Your task to perform on an android device: open a new tab in the chrome app Image 0: 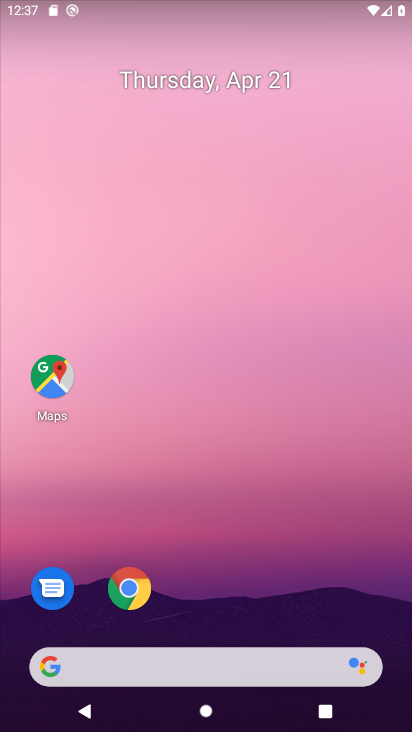
Step 0: click (129, 580)
Your task to perform on an android device: open a new tab in the chrome app Image 1: 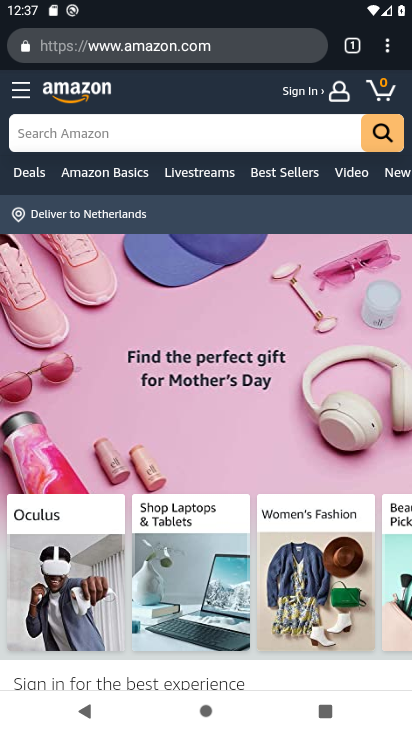
Step 1: click (353, 40)
Your task to perform on an android device: open a new tab in the chrome app Image 2: 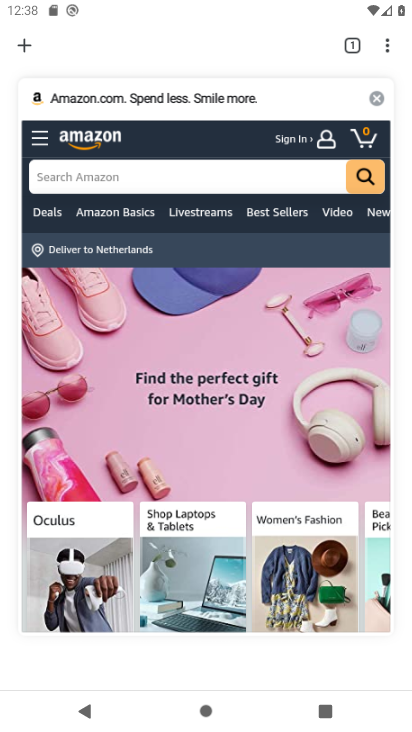
Step 2: click (29, 43)
Your task to perform on an android device: open a new tab in the chrome app Image 3: 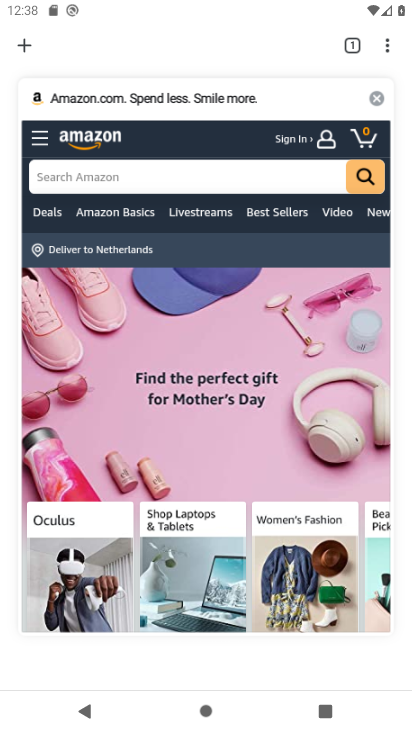
Step 3: click (24, 45)
Your task to perform on an android device: open a new tab in the chrome app Image 4: 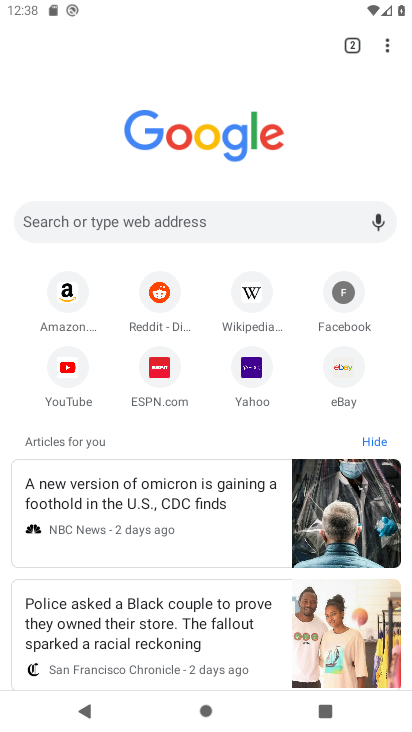
Step 4: task complete